Your task to perform on an android device: open a new tab in the chrome app Image 0: 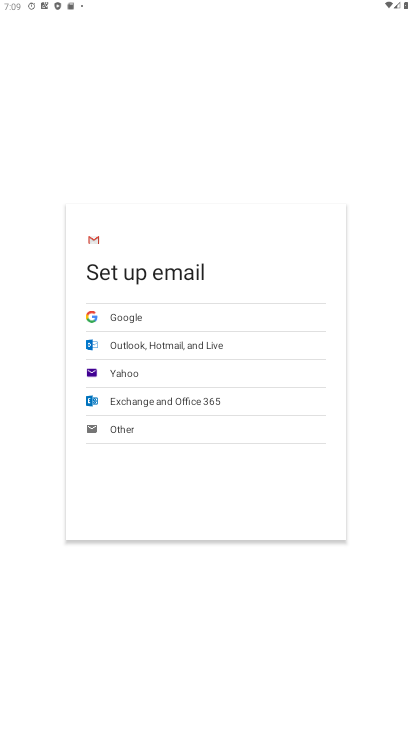
Step 0: press home button
Your task to perform on an android device: open a new tab in the chrome app Image 1: 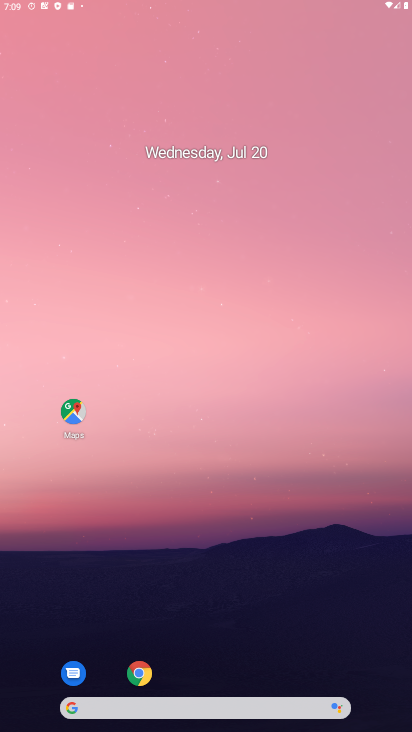
Step 1: drag from (371, 683) to (206, 65)
Your task to perform on an android device: open a new tab in the chrome app Image 2: 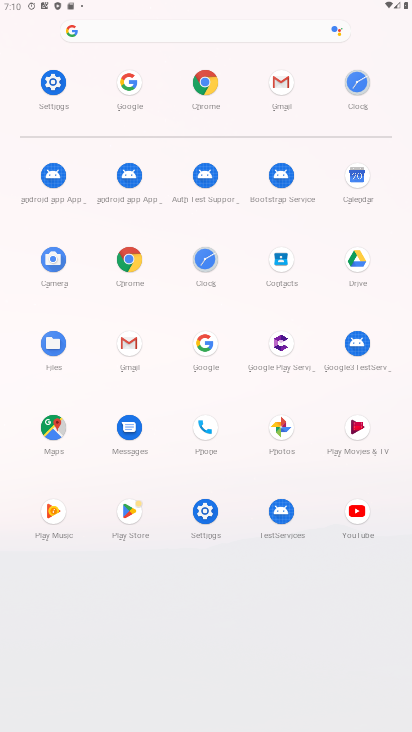
Step 2: click (120, 258)
Your task to perform on an android device: open a new tab in the chrome app Image 3: 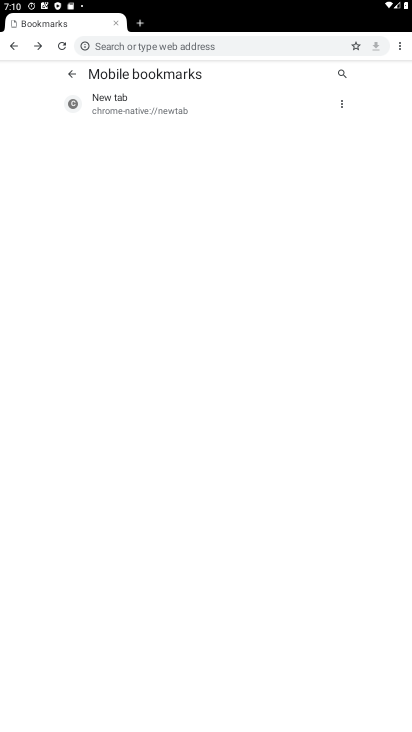
Step 3: click (135, 22)
Your task to perform on an android device: open a new tab in the chrome app Image 4: 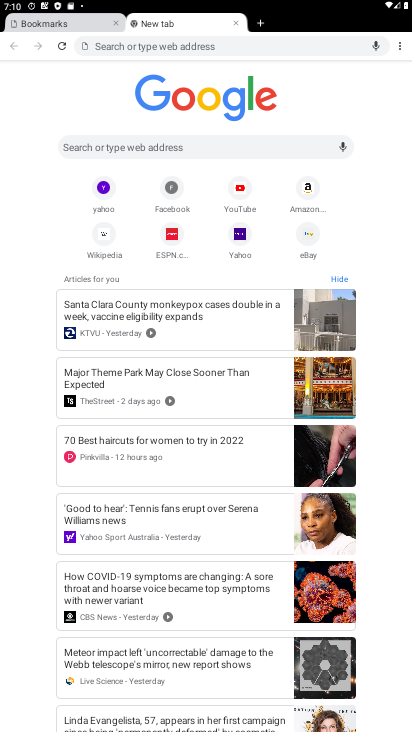
Step 4: task complete